Your task to perform on an android device: Go to Yahoo.com Image 0: 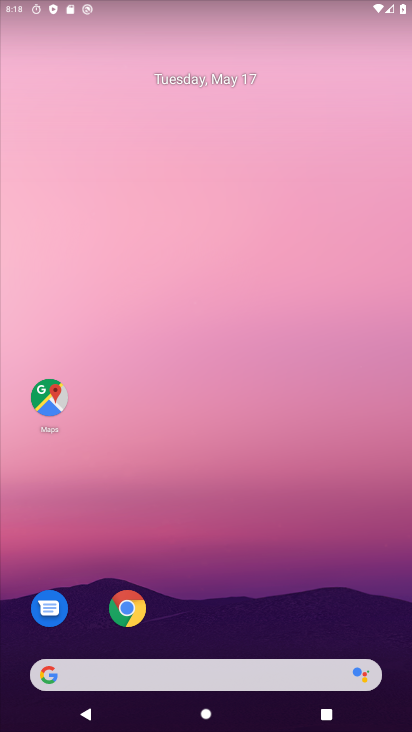
Step 0: drag from (373, 557) to (341, 176)
Your task to perform on an android device: Go to Yahoo.com Image 1: 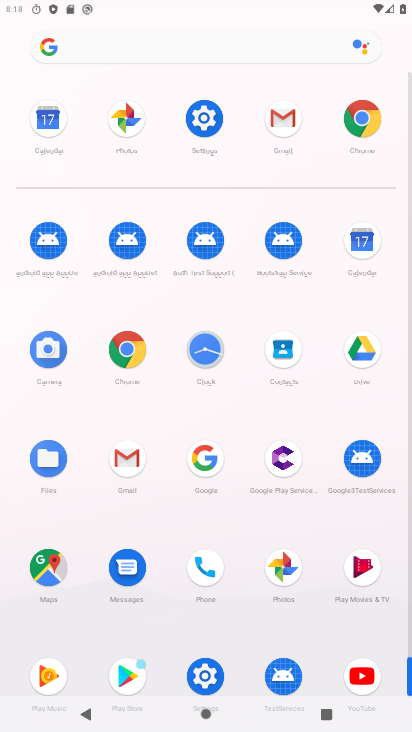
Step 1: click (124, 354)
Your task to perform on an android device: Go to Yahoo.com Image 2: 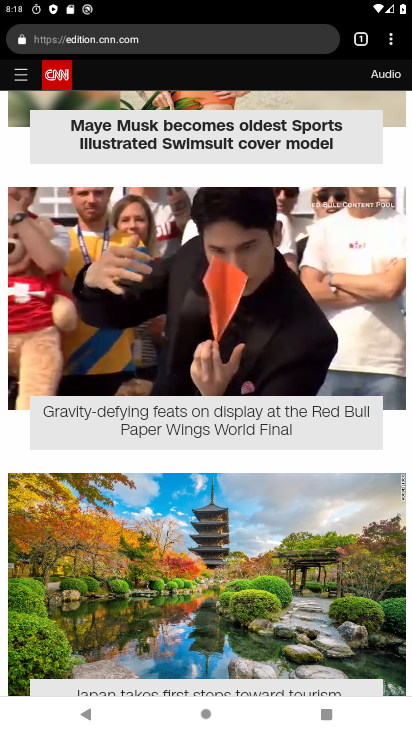
Step 2: click (112, 50)
Your task to perform on an android device: Go to Yahoo.com Image 3: 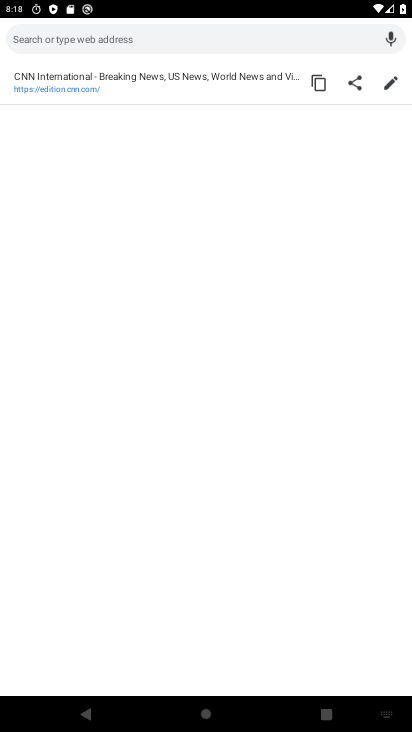
Step 3: type "yahoo.com"
Your task to perform on an android device: Go to Yahoo.com Image 4: 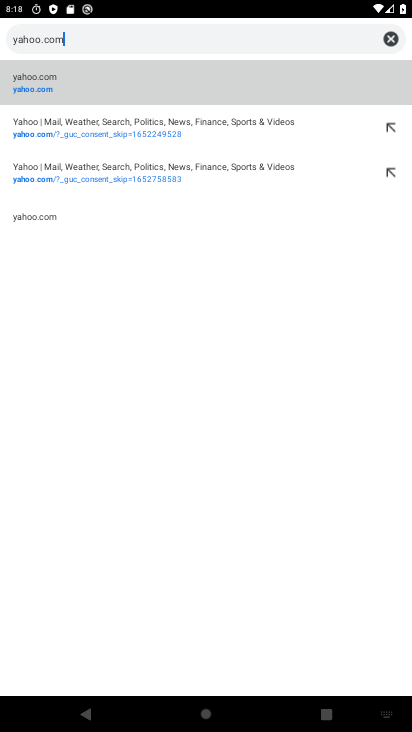
Step 4: click (27, 82)
Your task to perform on an android device: Go to Yahoo.com Image 5: 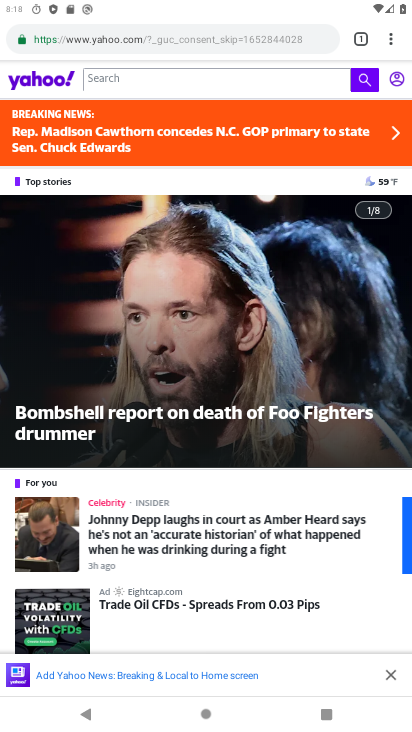
Step 5: task complete